Your task to perform on an android device: open app "Spotify: Music and Podcasts" (install if not already installed) Image 0: 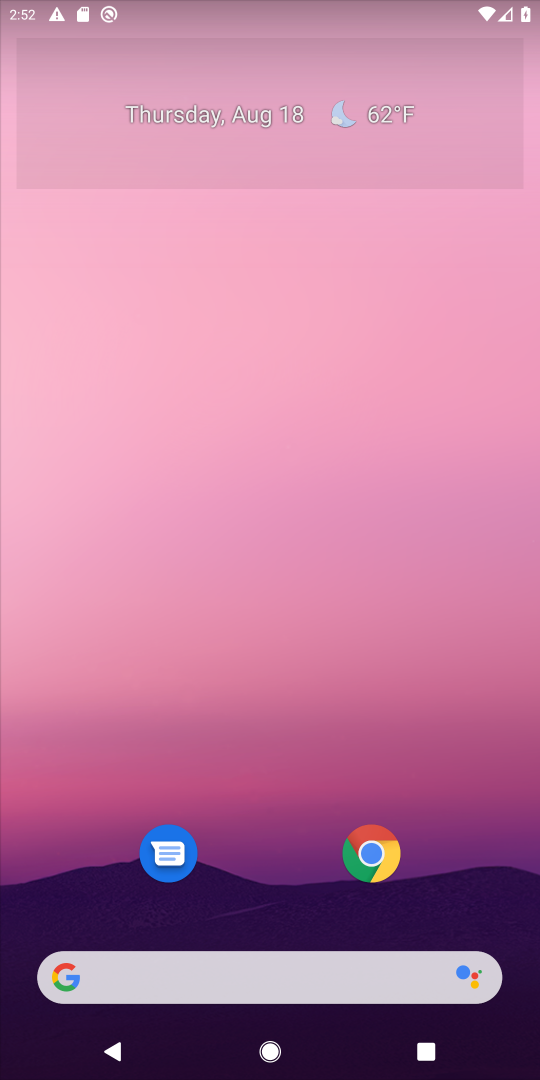
Step 0: drag from (412, 618) to (36, 148)
Your task to perform on an android device: open app "Spotify: Music and Podcasts" (install if not already installed) Image 1: 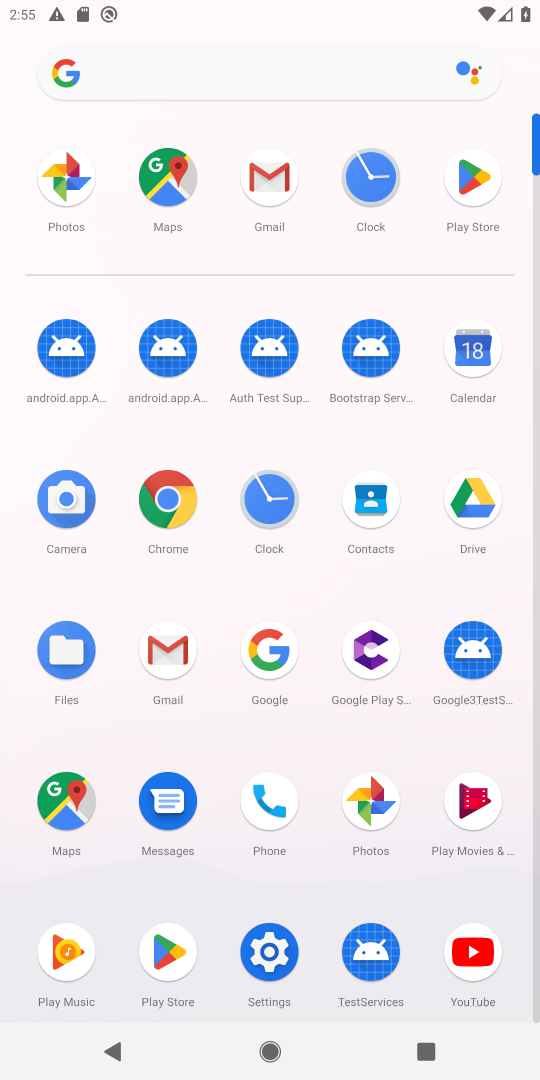
Step 1: click (482, 202)
Your task to perform on an android device: open app "Spotify: Music and Podcasts" (install if not already installed) Image 2: 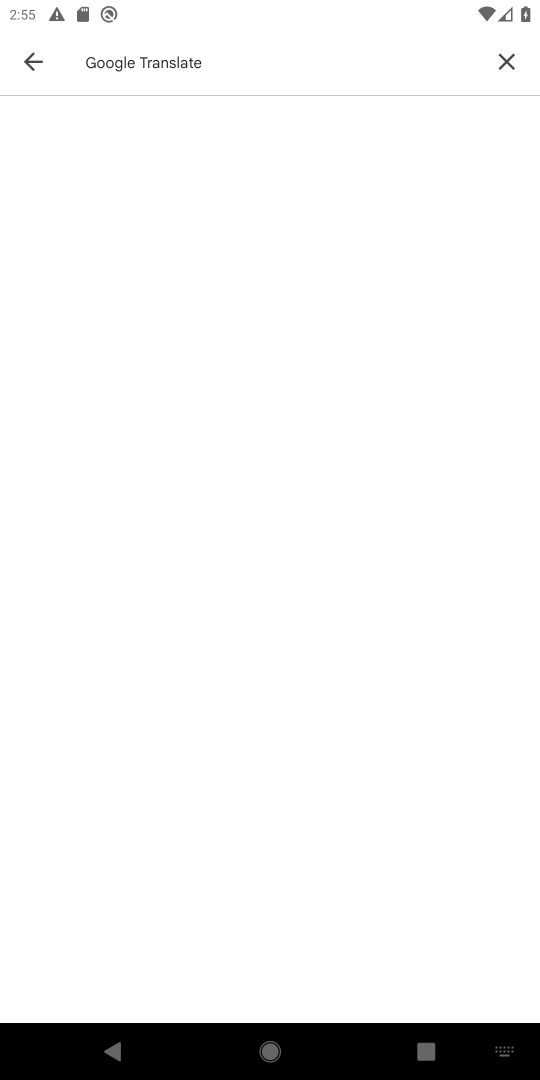
Step 2: click (496, 62)
Your task to perform on an android device: open app "Spotify: Music and Podcasts" (install if not already installed) Image 3: 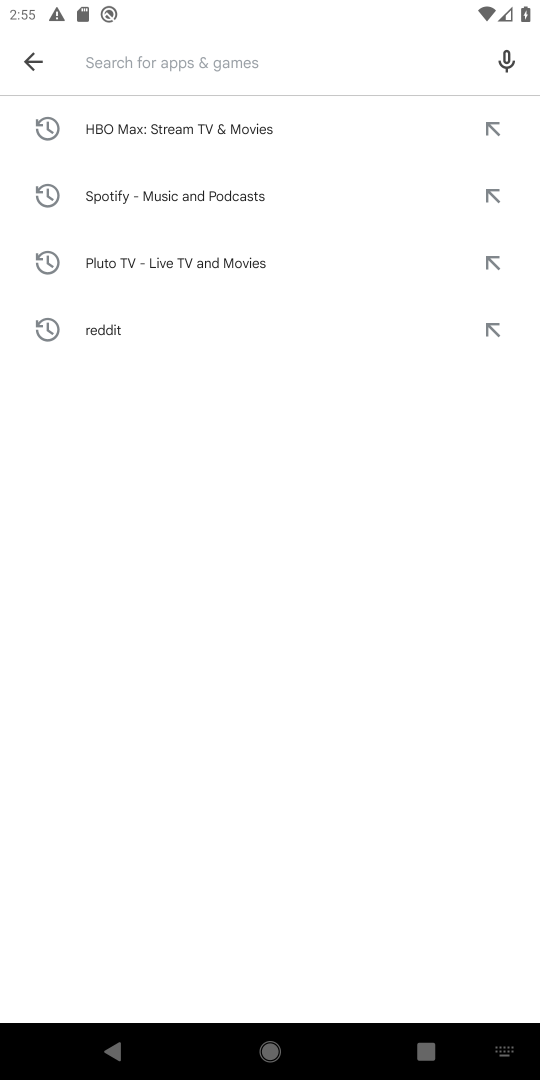
Step 3: type "Spotify: Music and Podcasts]"
Your task to perform on an android device: open app "Spotify: Music and Podcasts" (install if not already installed) Image 4: 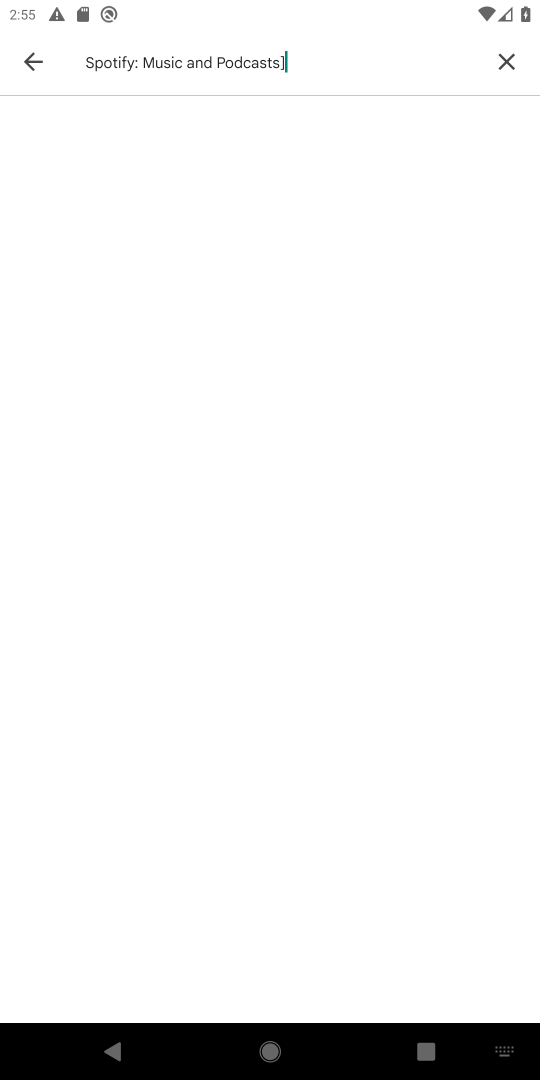
Step 4: task complete